Your task to perform on an android device: toggle notifications settings in the gmail app Image 0: 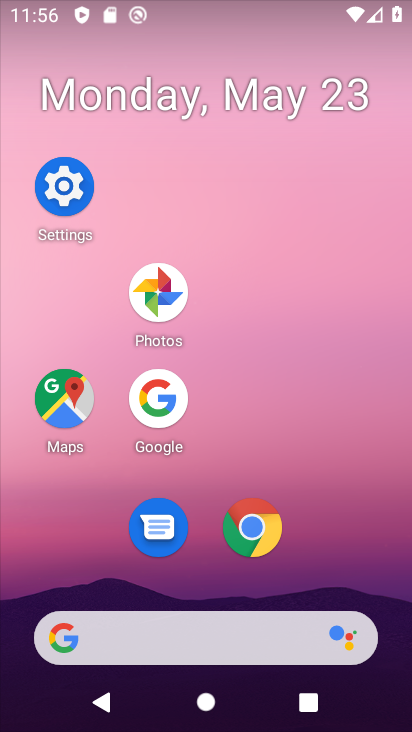
Step 0: drag from (309, 530) to (352, 120)
Your task to perform on an android device: toggle notifications settings in the gmail app Image 1: 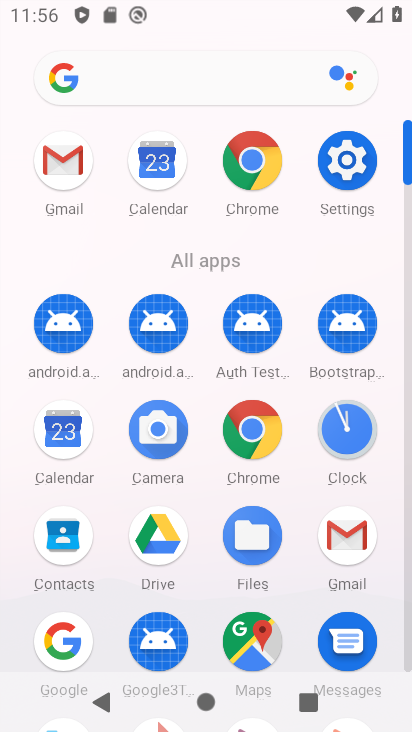
Step 1: drag from (345, 561) to (259, 437)
Your task to perform on an android device: toggle notifications settings in the gmail app Image 2: 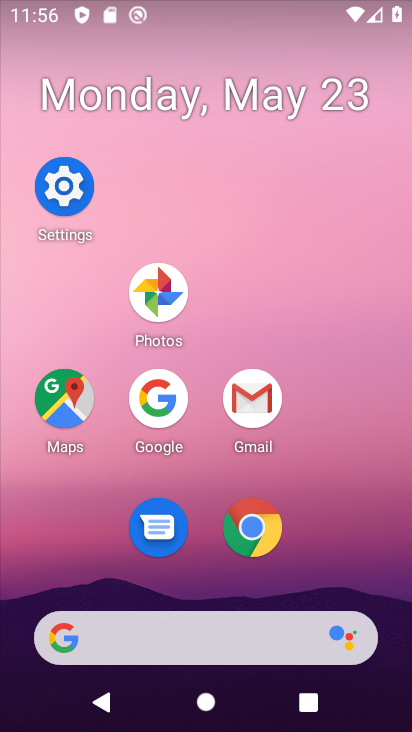
Step 2: click (252, 394)
Your task to perform on an android device: toggle notifications settings in the gmail app Image 3: 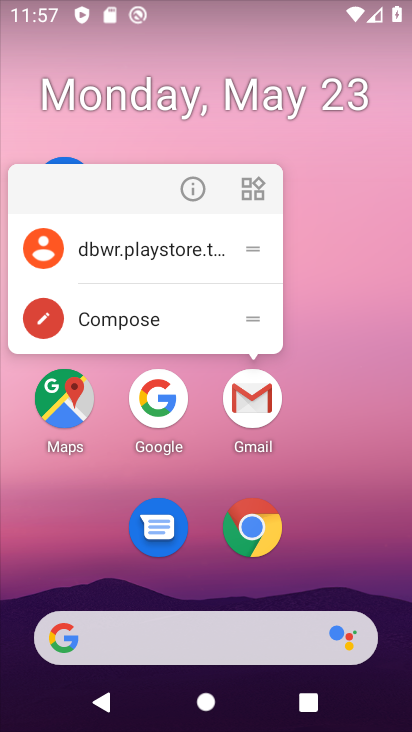
Step 3: click (252, 394)
Your task to perform on an android device: toggle notifications settings in the gmail app Image 4: 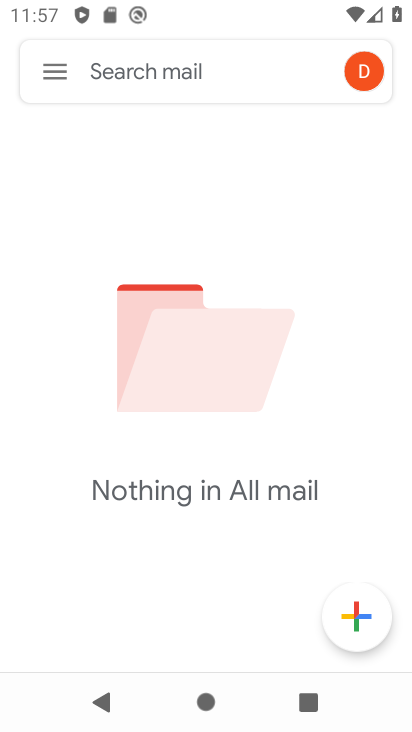
Step 4: click (53, 101)
Your task to perform on an android device: toggle notifications settings in the gmail app Image 5: 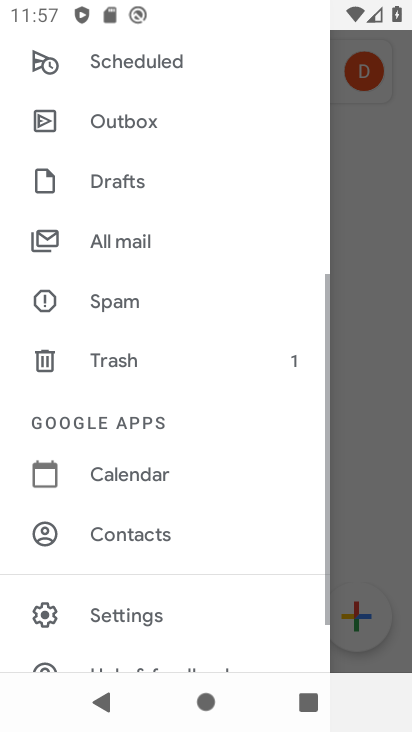
Step 5: drag from (111, 628) to (155, 217)
Your task to perform on an android device: toggle notifications settings in the gmail app Image 6: 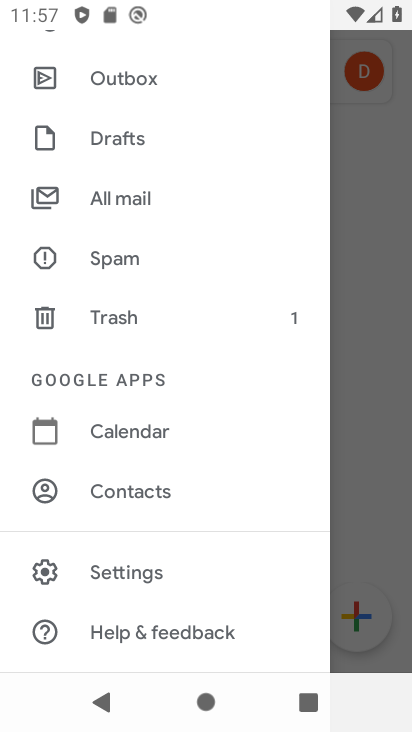
Step 6: click (161, 585)
Your task to perform on an android device: toggle notifications settings in the gmail app Image 7: 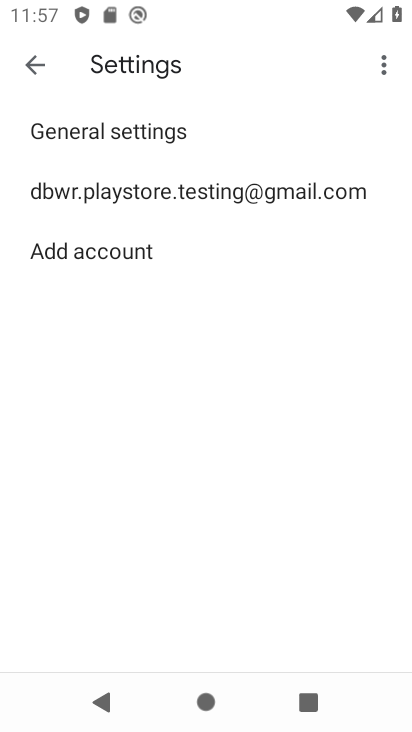
Step 7: drag from (161, 585) to (178, 269)
Your task to perform on an android device: toggle notifications settings in the gmail app Image 8: 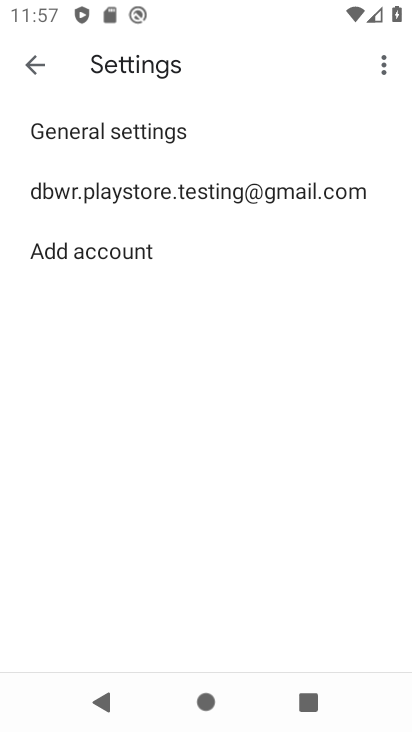
Step 8: click (199, 188)
Your task to perform on an android device: toggle notifications settings in the gmail app Image 9: 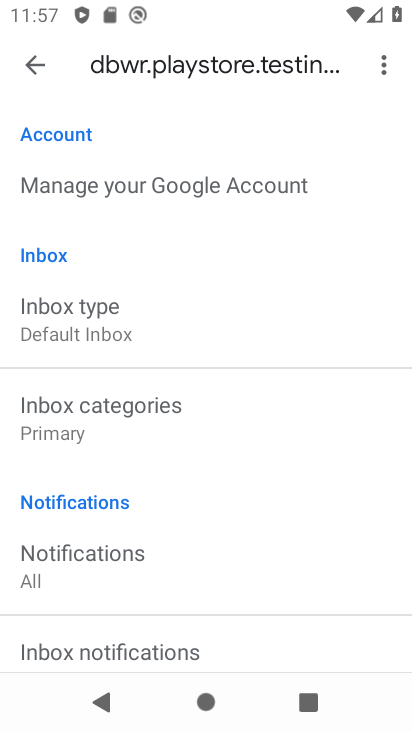
Step 9: click (158, 549)
Your task to perform on an android device: toggle notifications settings in the gmail app Image 10: 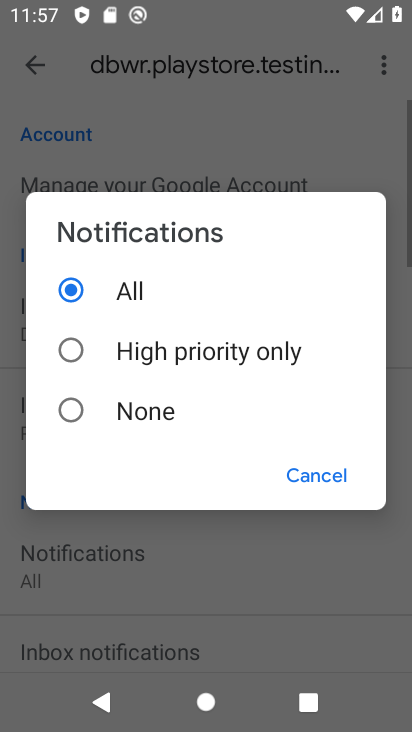
Step 10: click (169, 370)
Your task to perform on an android device: toggle notifications settings in the gmail app Image 11: 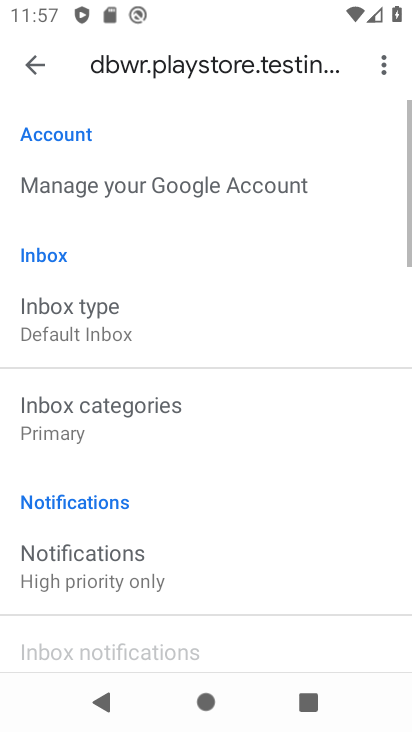
Step 11: task complete